Your task to perform on an android device: Open settings Image 0: 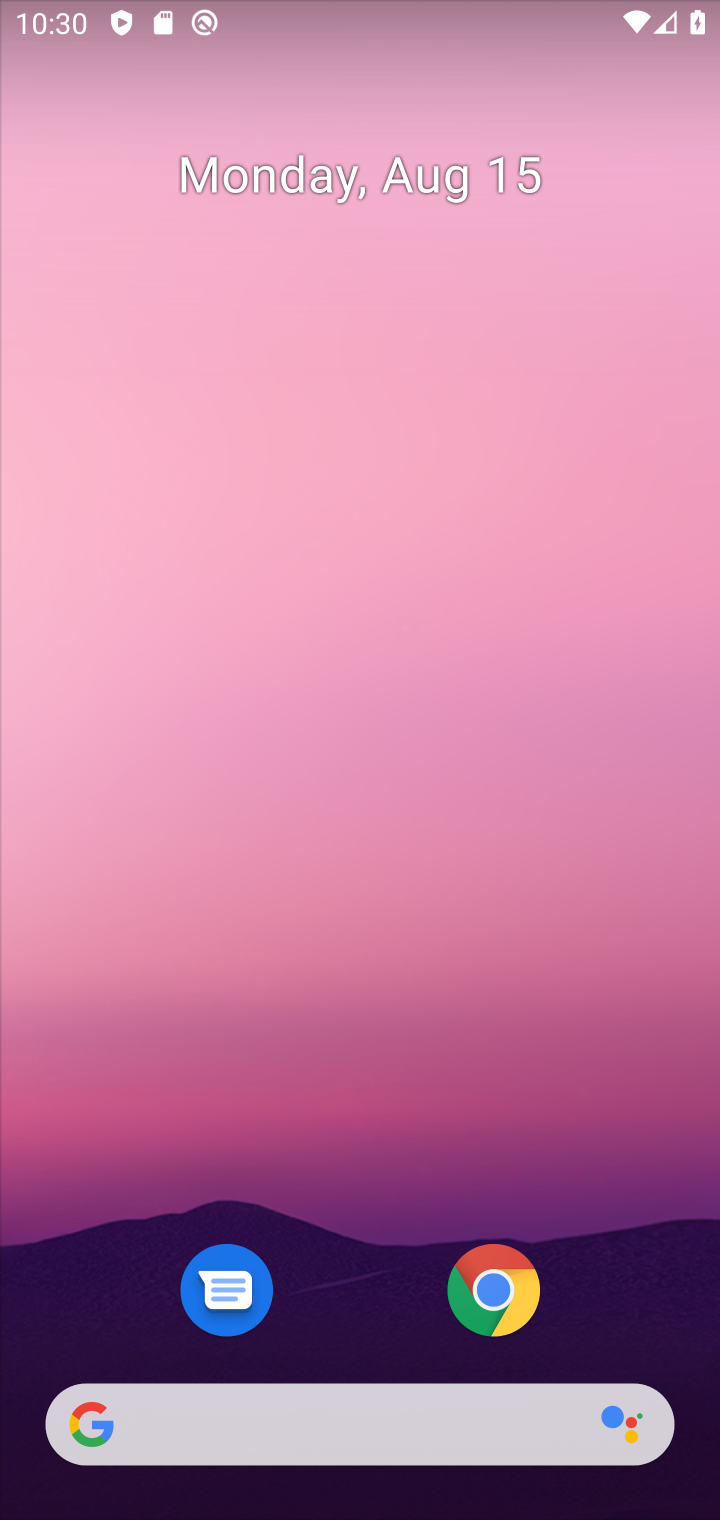
Step 0: drag from (365, 1215) to (513, 56)
Your task to perform on an android device: Open settings Image 1: 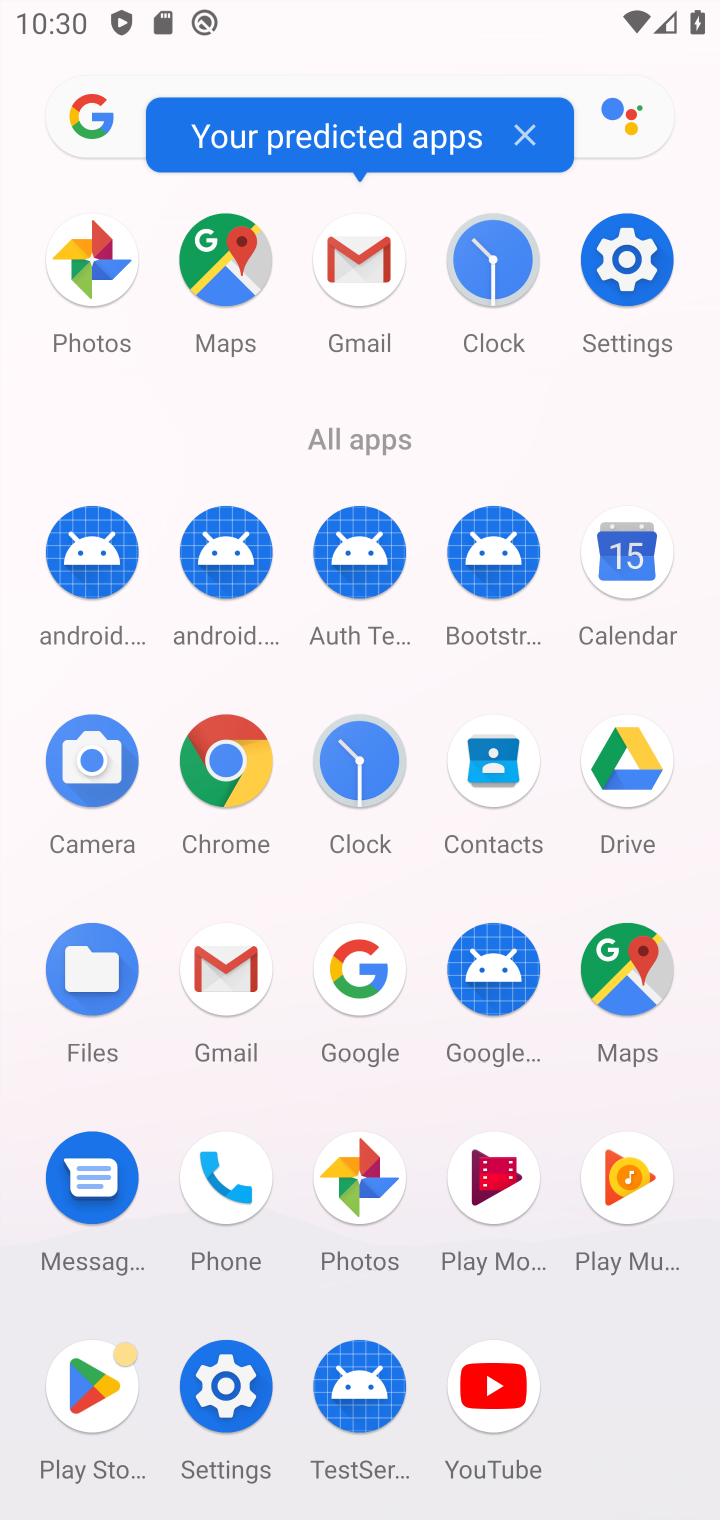
Step 1: drag from (634, 263) to (503, 914)
Your task to perform on an android device: Open settings Image 2: 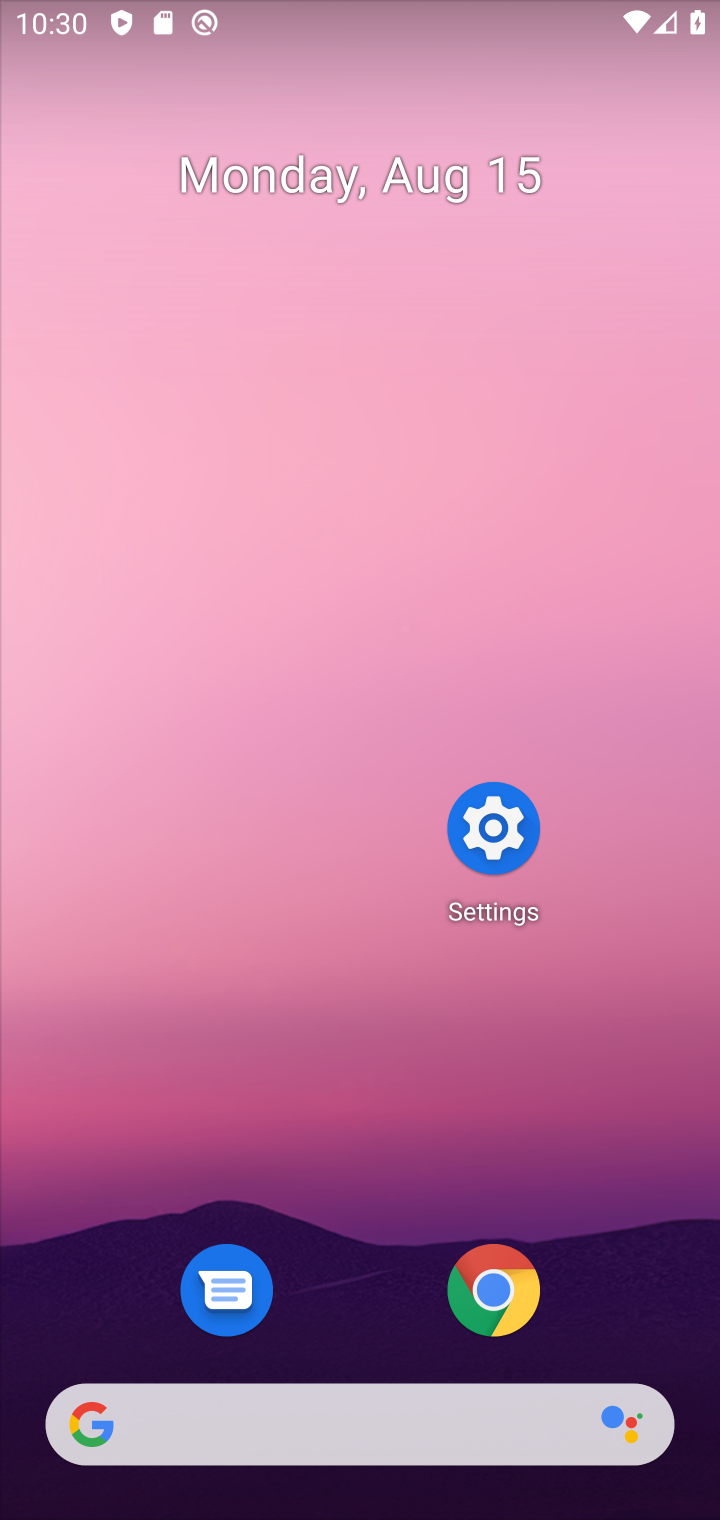
Step 2: click (488, 821)
Your task to perform on an android device: Open settings Image 3: 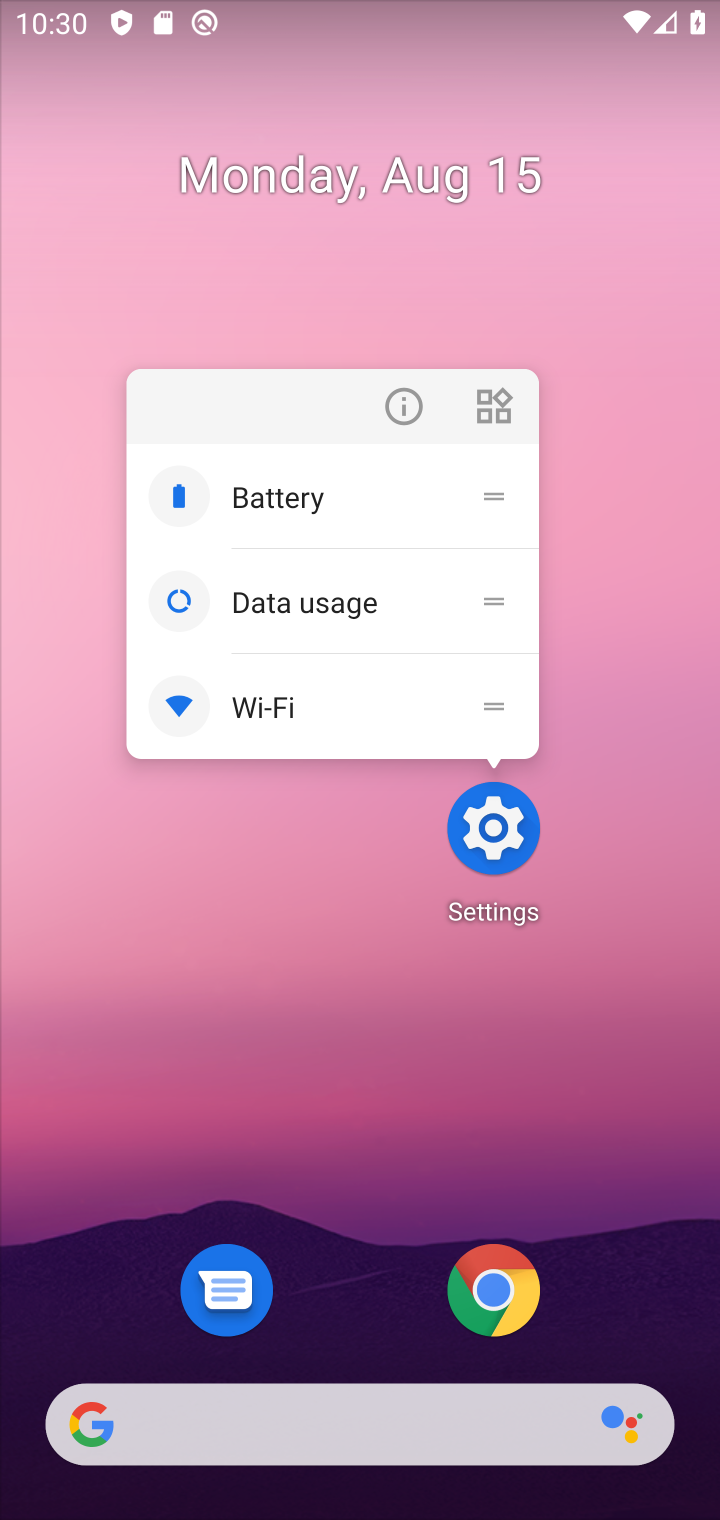
Step 3: click (488, 841)
Your task to perform on an android device: Open settings Image 4: 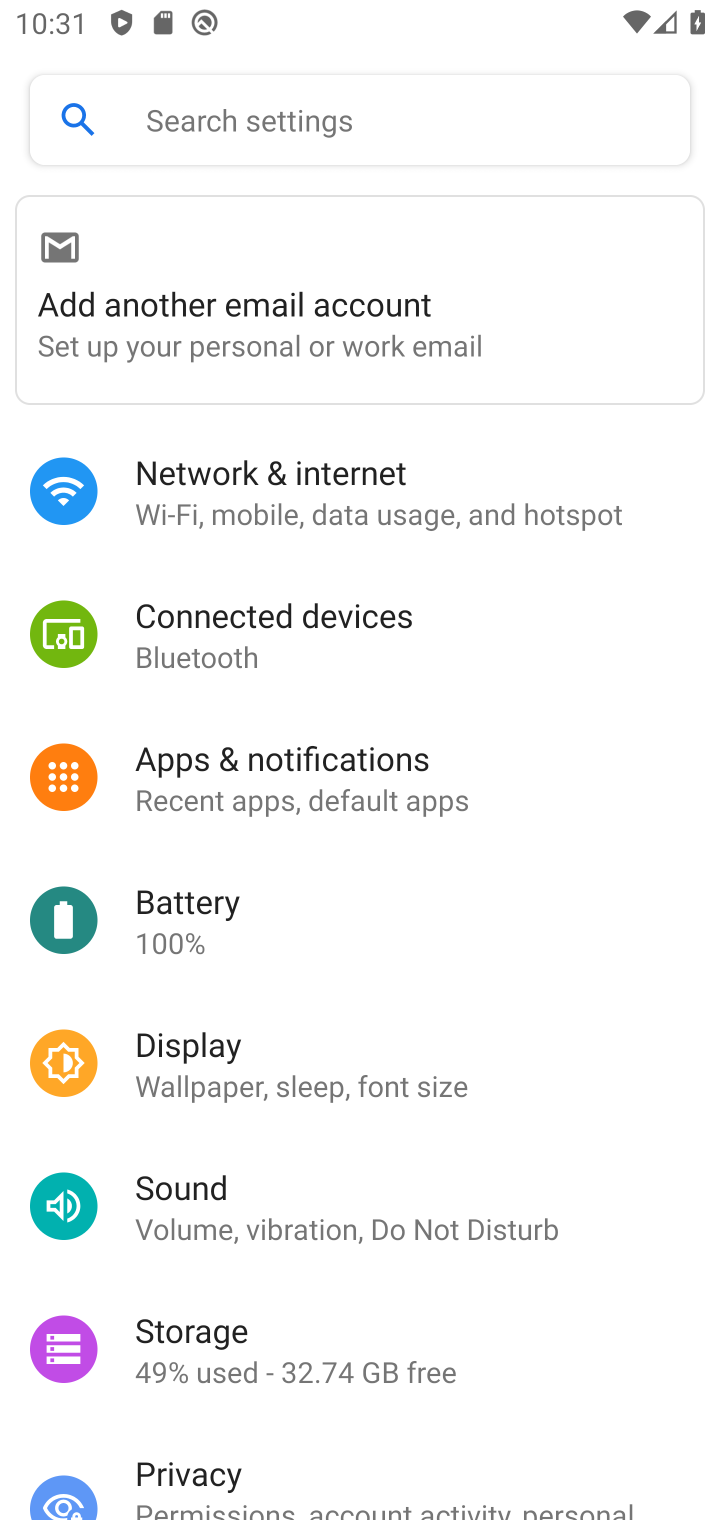
Step 4: task complete